Your task to perform on an android device: Open the phone app and click the voicemail tab. Image 0: 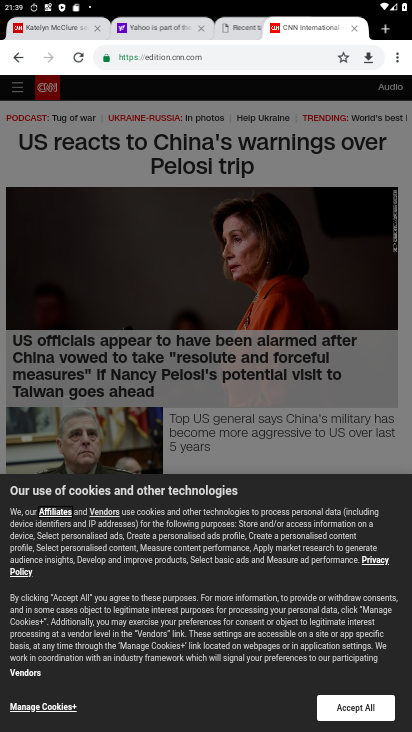
Step 0: press home button
Your task to perform on an android device: Open the phone app and click the voicemail tab. Image 1: 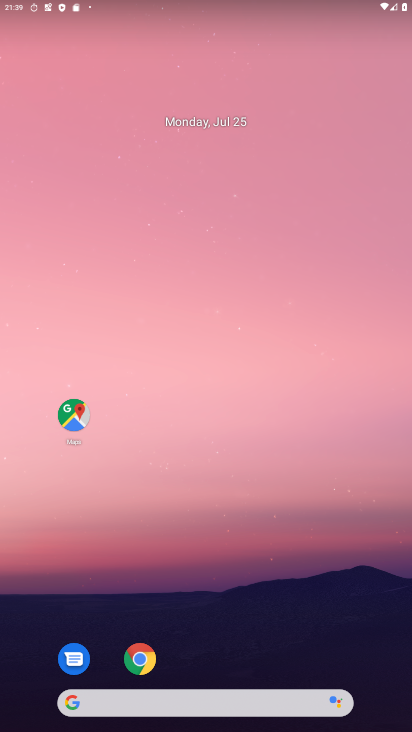
Step 1: drag from (202, 662) to (230, 304)
Your task to perform on an android device: Open the phone app and click the voicemail tab. Image 2: 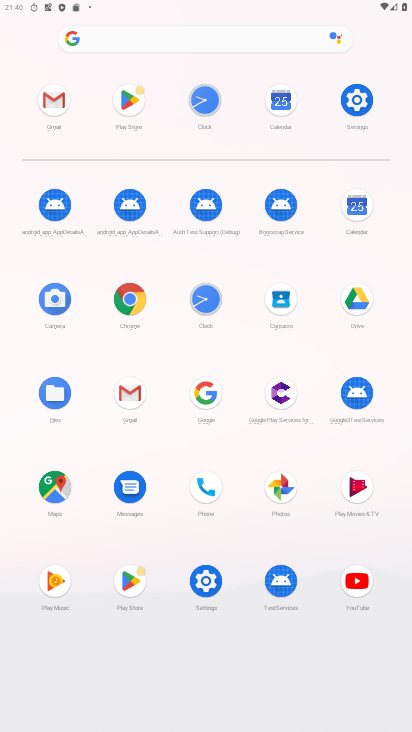
Step 2: click (203, 491)
Your task to perform on an android device: Open the phone app and click the voicemail tab. Image 3: 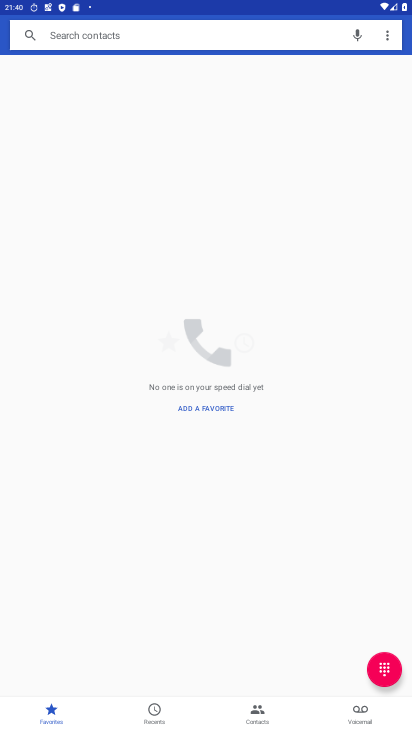
Step 3: click (371, 713)
Your task to perform on an android device: Open the phone app and click the voicemail tab. Image 4: 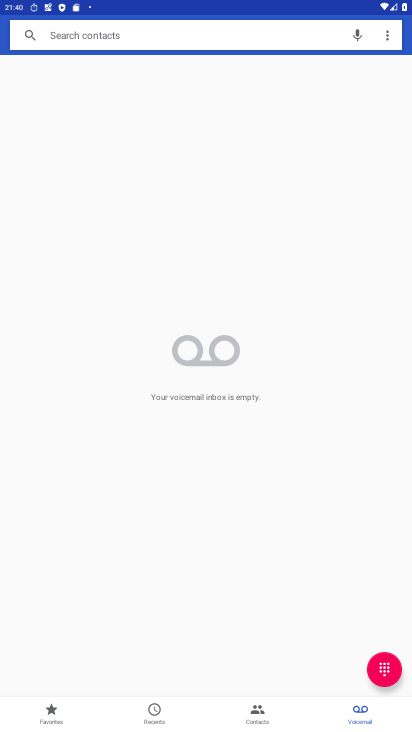
Step 4: click (350, 709)
Your task to perform on an android device: Open the phone app and click the voicemail tab. Image 5: 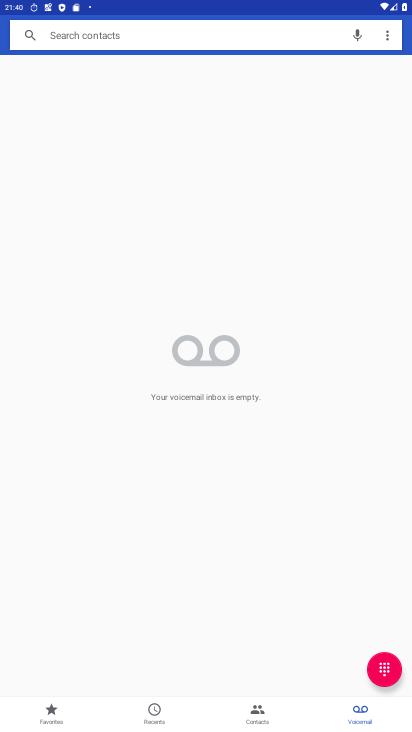
Step 5: task complete